Your task to perform on an android device: toggle notification dots Image 0: 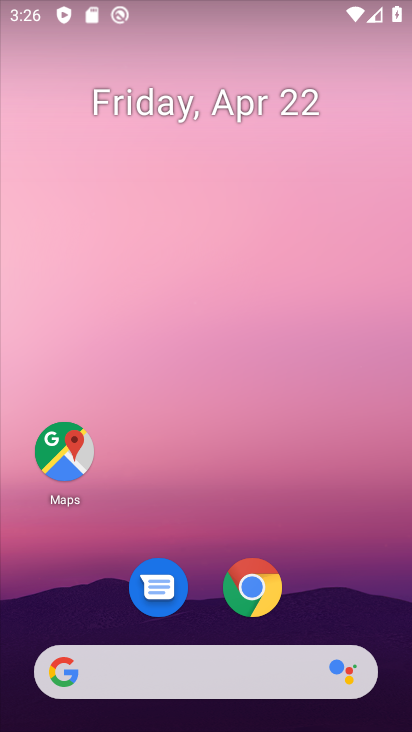
Step 0: drag from (359, 594) to (341, 4)
Your task to perform on an android device: toggle notification dots Image 1: 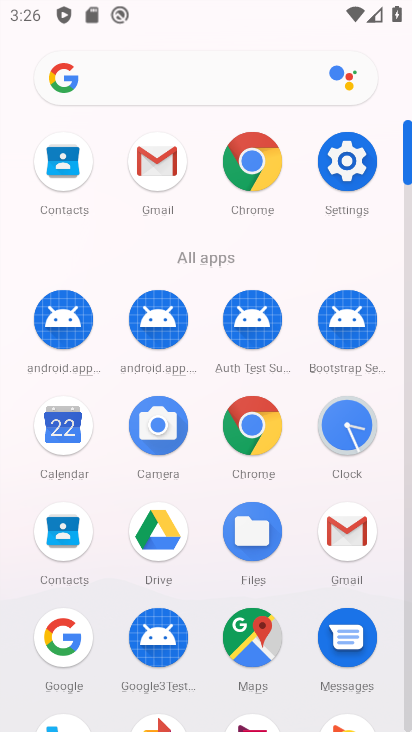
Step 1: click (347, 163)
Your task to perform on an android device: toggle notification dots Image 2: 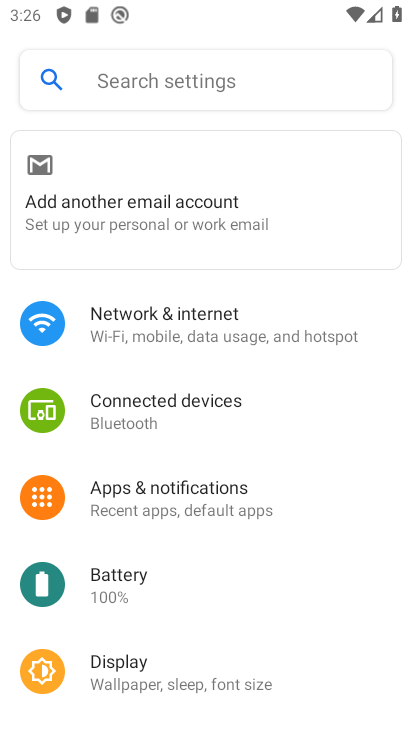
Step 2: click (166, 503)
Your task to perform on an android device: toggle notification dots Image 3: 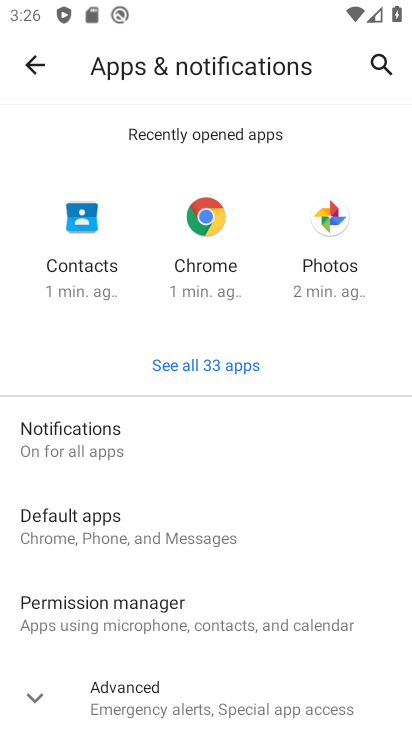
Step 3: drag from (244, 581) to (238, 318)
Your task to perform on an android device: toggle notification dots Image 4: 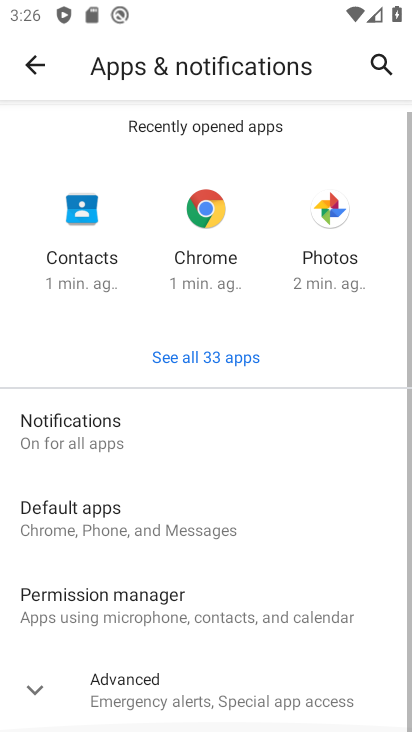
Step 4: click (100, 436)
Your task to perform on an android device: toggle notification dots Image 5: 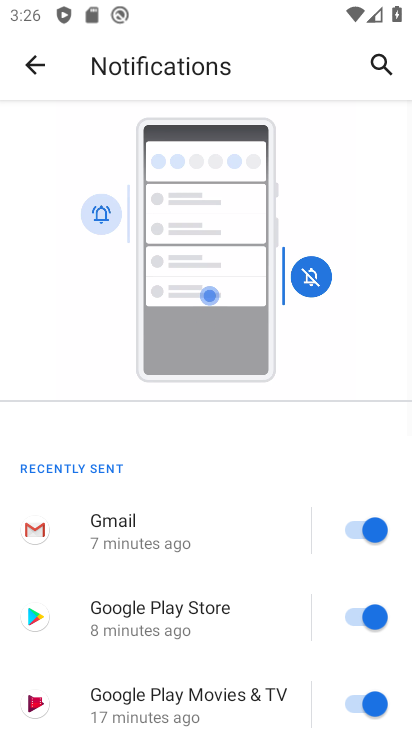
Step 5: drag from (236, 569) to (212, 107)
Your task to perform on an android device: toggle notification dots Image 6: 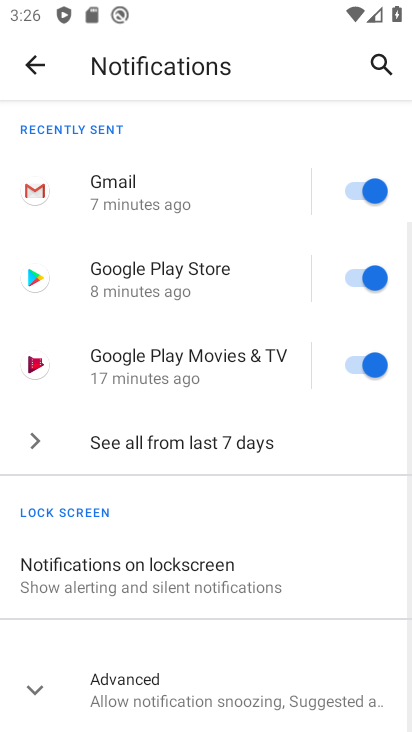
Step 6: drag from (167, 603) to (161, 208)
Your task to perform on an android device: toggle notification dots Image 7: 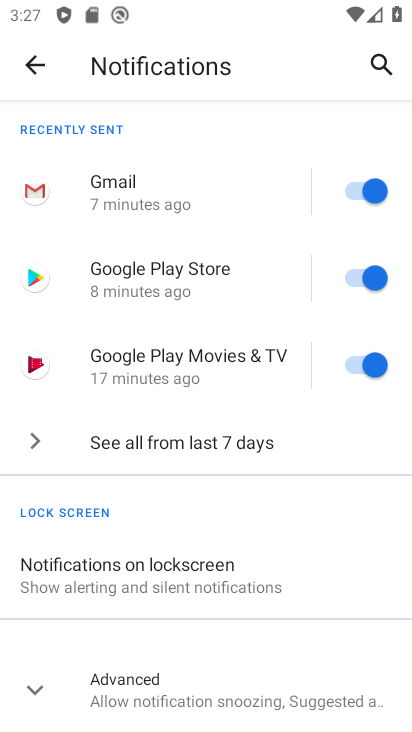
Step 7: click (39, 688)
Your task to perform on an android device: toggle notification dots Image 8: 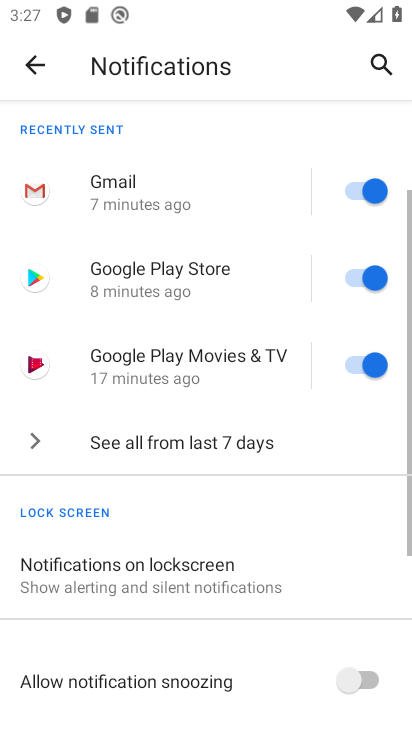
Step 8: drag from (179, 682) to (196, 173)
Your task to perform on an android device: toggle notification dots Image 9: 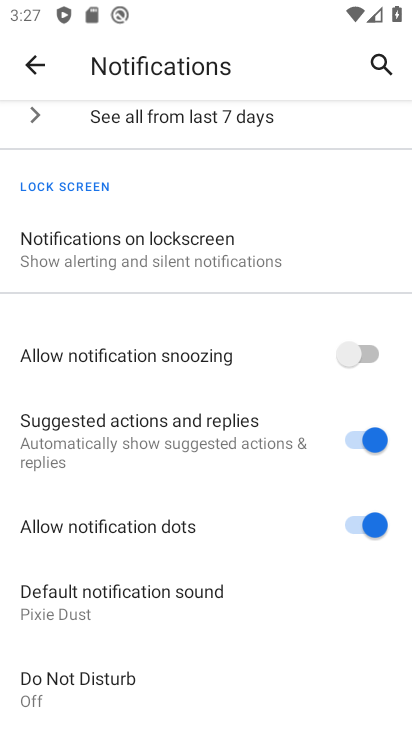
Step 9: click (369, 527)
Your task to perform on an android device: toggle notification dots Image 10: 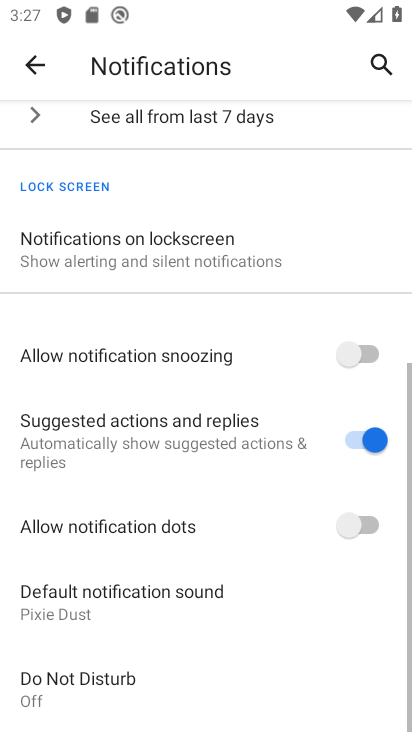
Step 10: task complete